Your task to perform on an android device: Go to network settings Image 0: 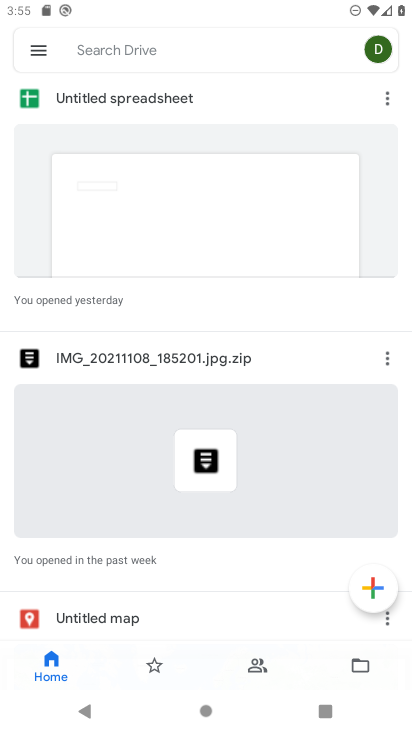
Step 0: press home button
Your task to perform on an android device: Go to network settings Image 1: 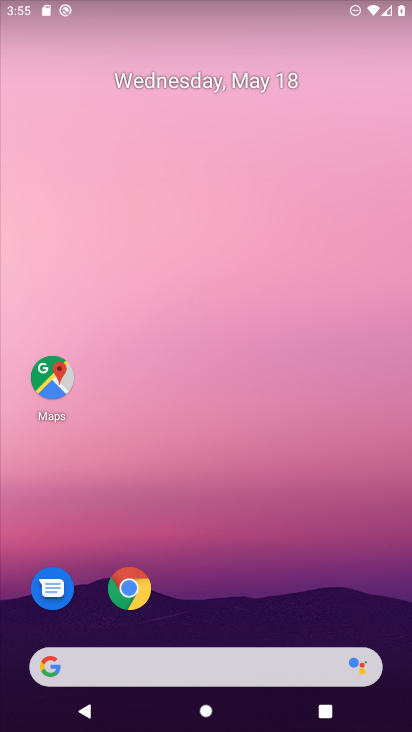
Step 1: drag from (285, 583) to (315, 1)
Your task to perform on an android device: Go to network settings Image 2: 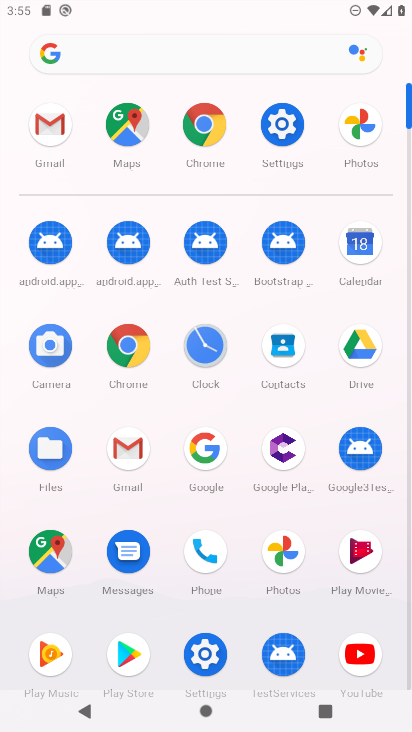
Step 2: click (283, 148)
Your task to perform on an android device: Go to network settings Image 3: 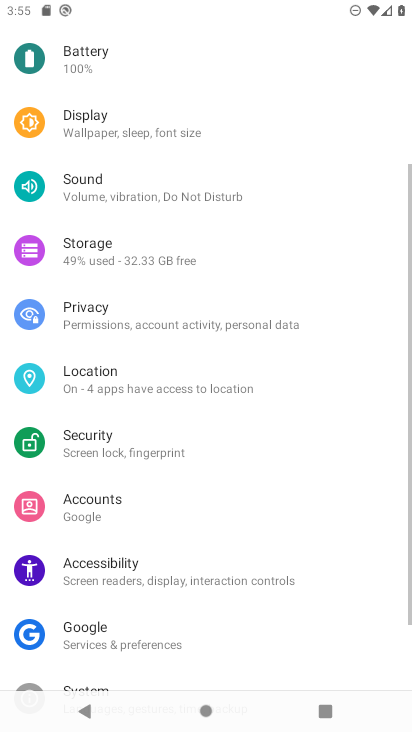
Step 3: drag from (225, 114) to (190, 677)
Your task to perform on an android device: Go to network settings Image 4: 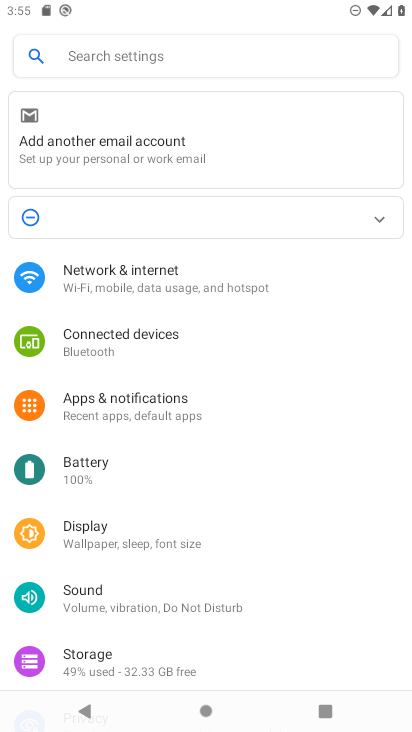
Step 4: click (140, 274)
Your task to perform on an android device: Go to network settings Image 5: 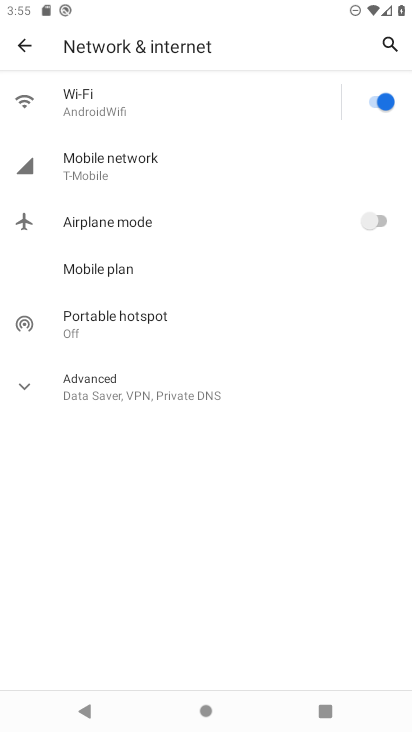
Step 5: task complete